Your task to perform on an android device: turn off priority inbox in the gmail app Image 0: 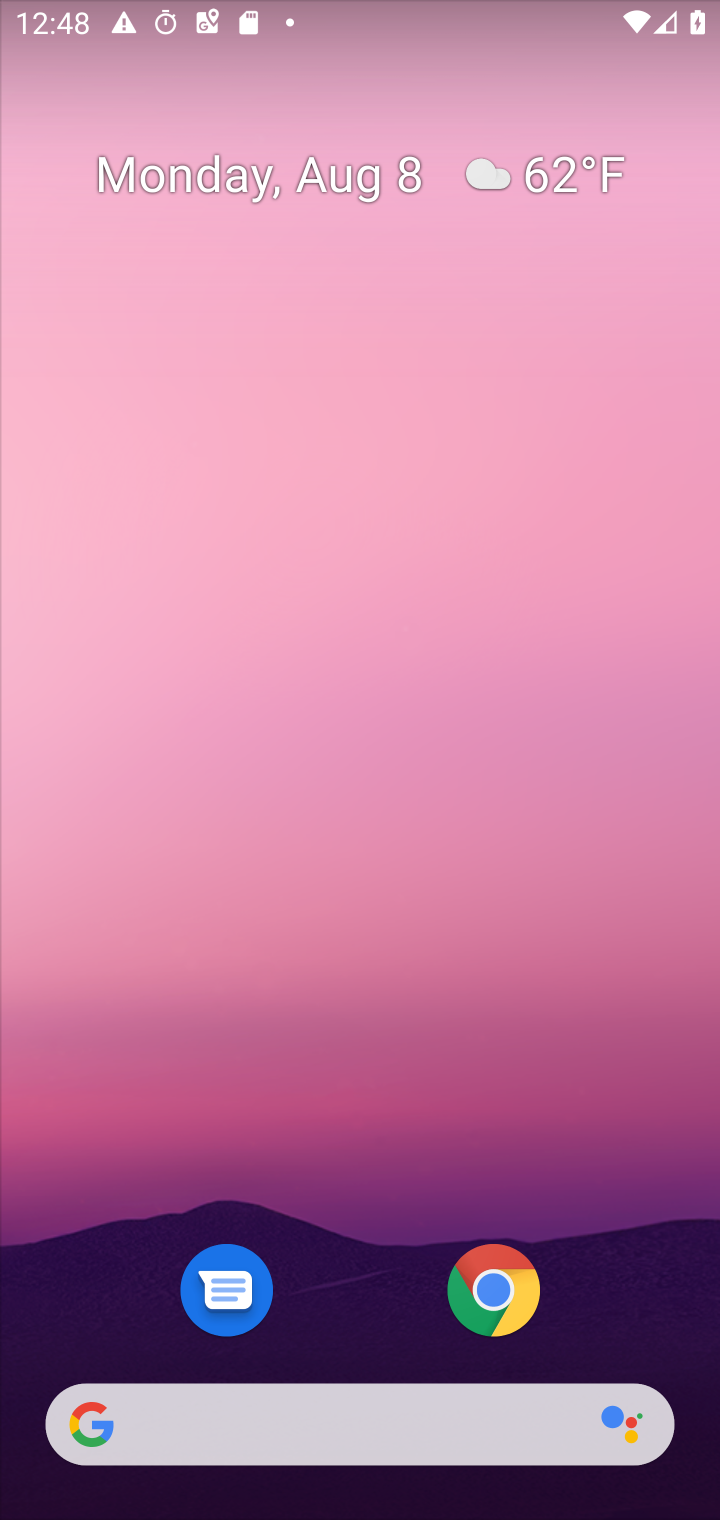
Step 0: drag from (365, 1359) to (430, 472)
Your task to perform on an android device: turn off priority inbox in the gmail app Image 1: 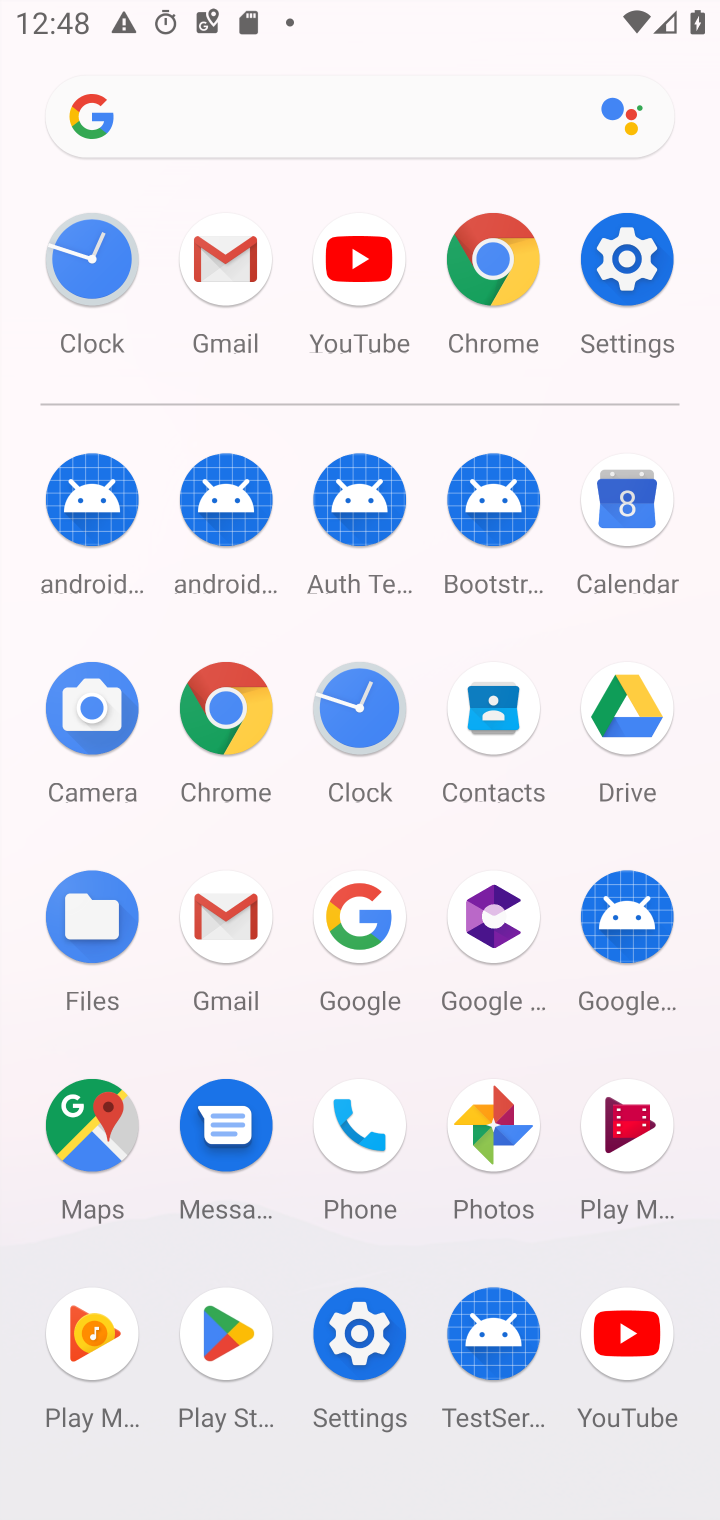
Step 1: click (241, 942)
Your task to perform on an android device: turn off priority inbox in the gmail app Image 2: 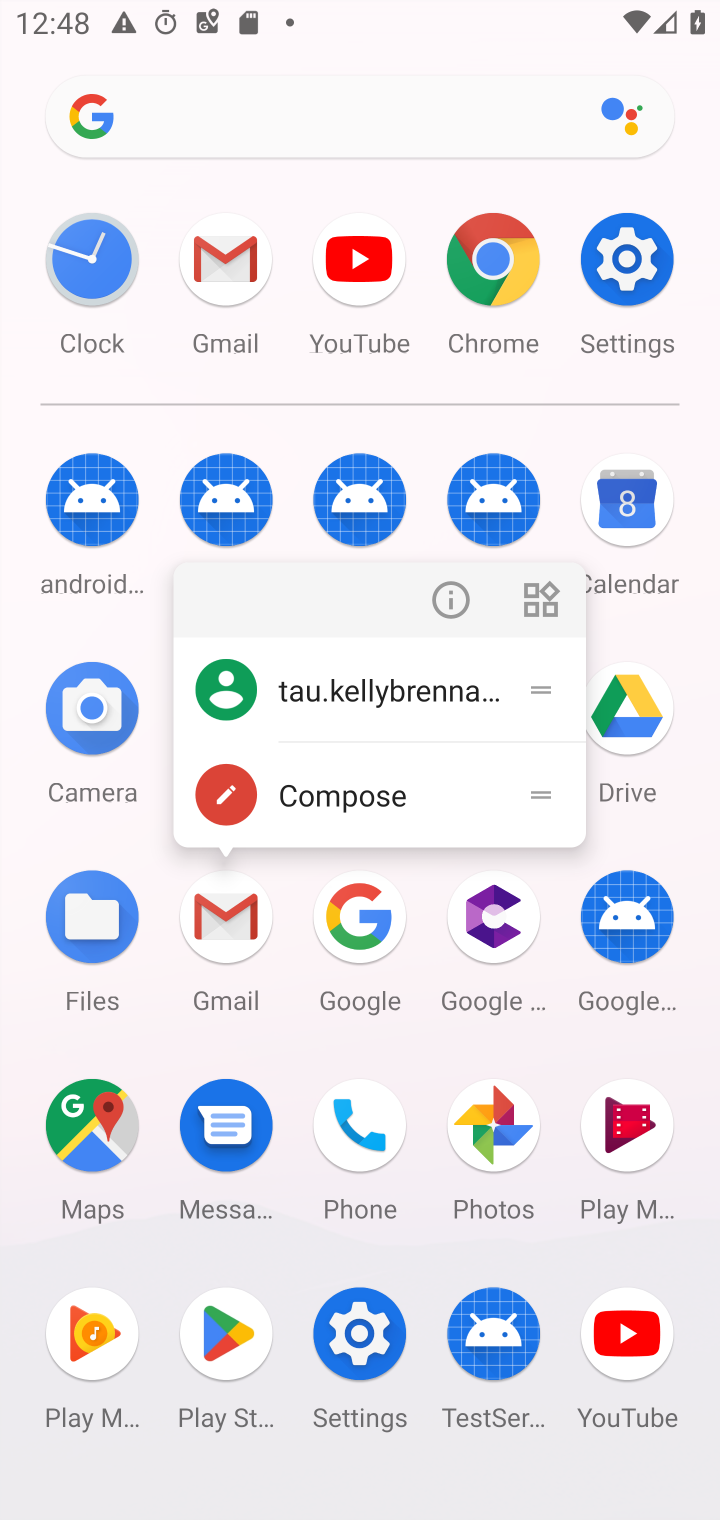
Step 2: click (241, 942)
Your task to perform on an android device: turn off priority inbox in the gmail app Image 3: 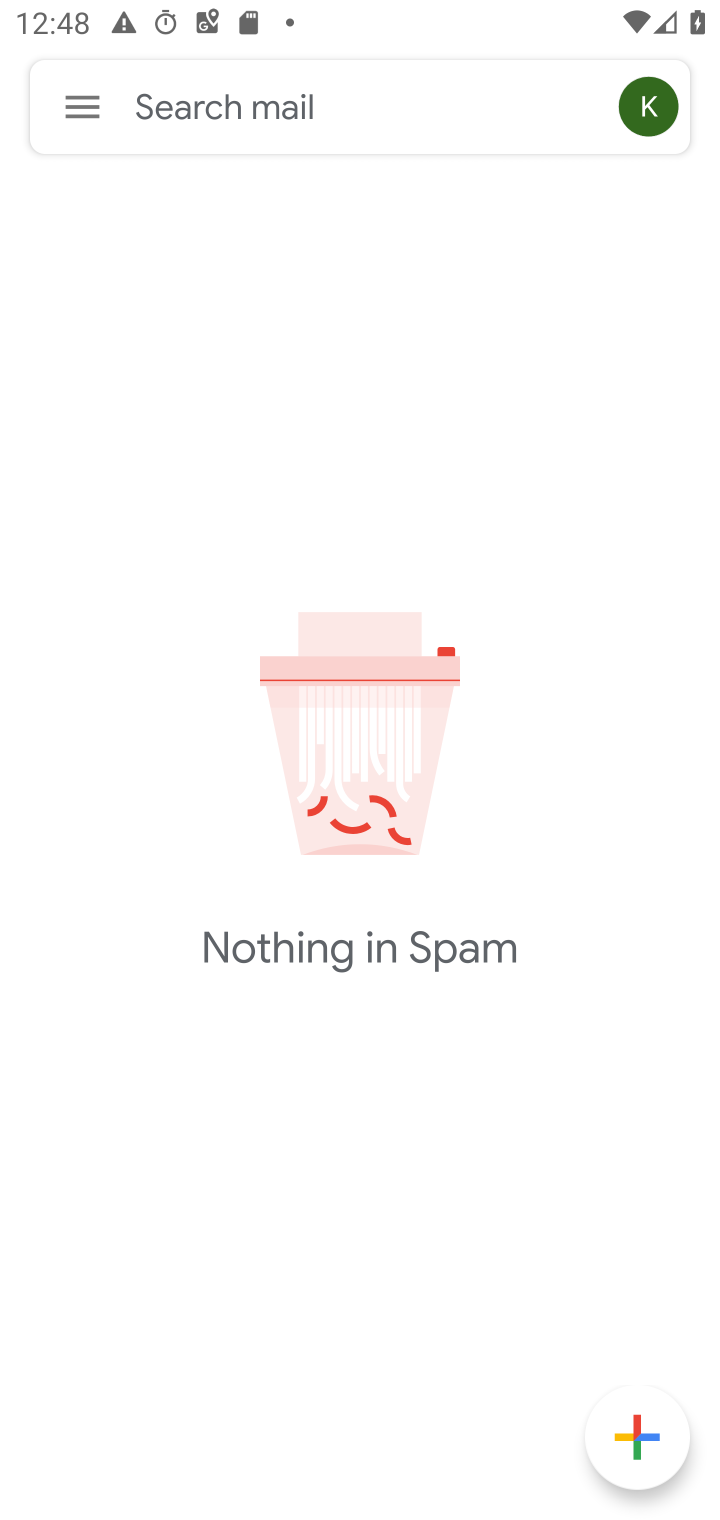
Step 3: click (84, 106)
Your task to perform on an android device: turn off priority inbox in the gmail app Image 4: 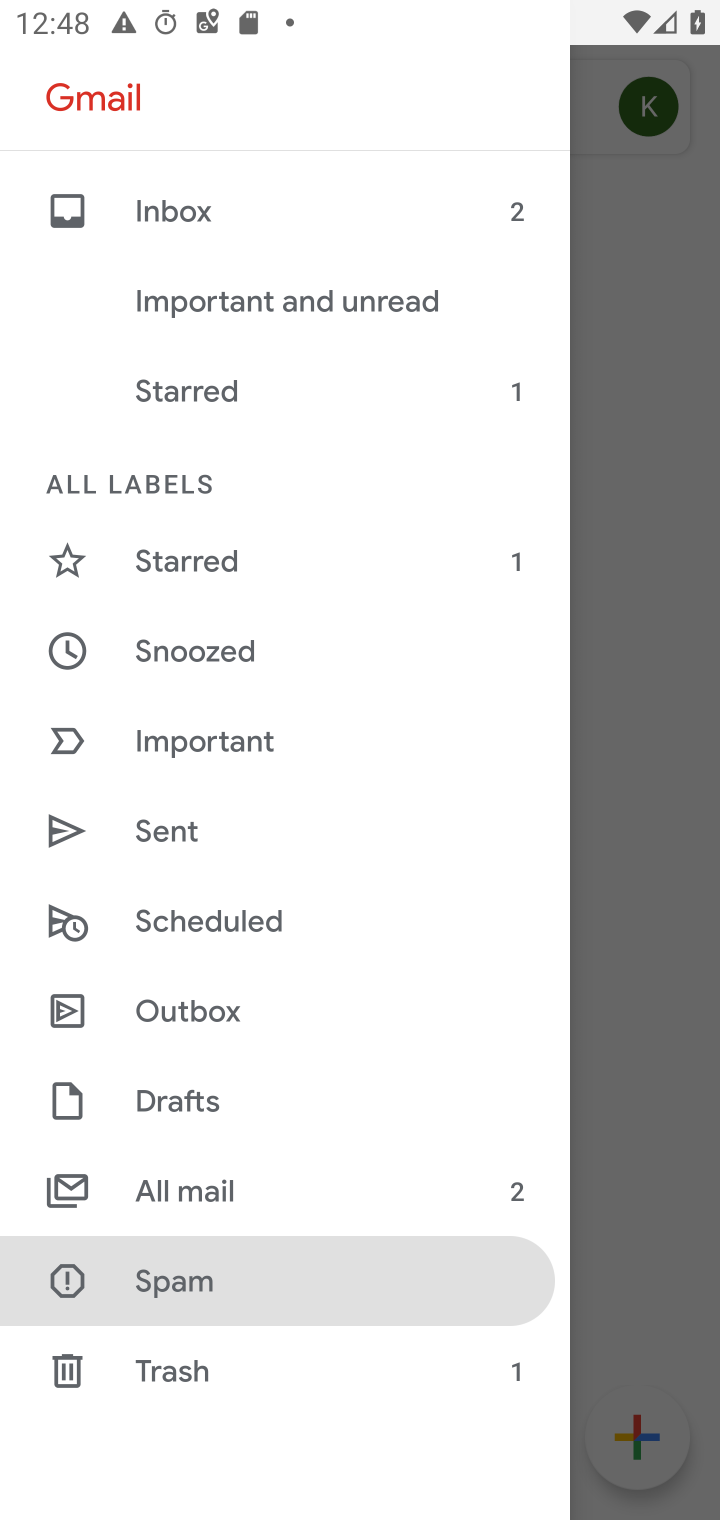
Step 4: drag from (285, 1214) to (394, 401)
Your task to perform on an android device: turn off priority inbox in the gmail app Image 5: 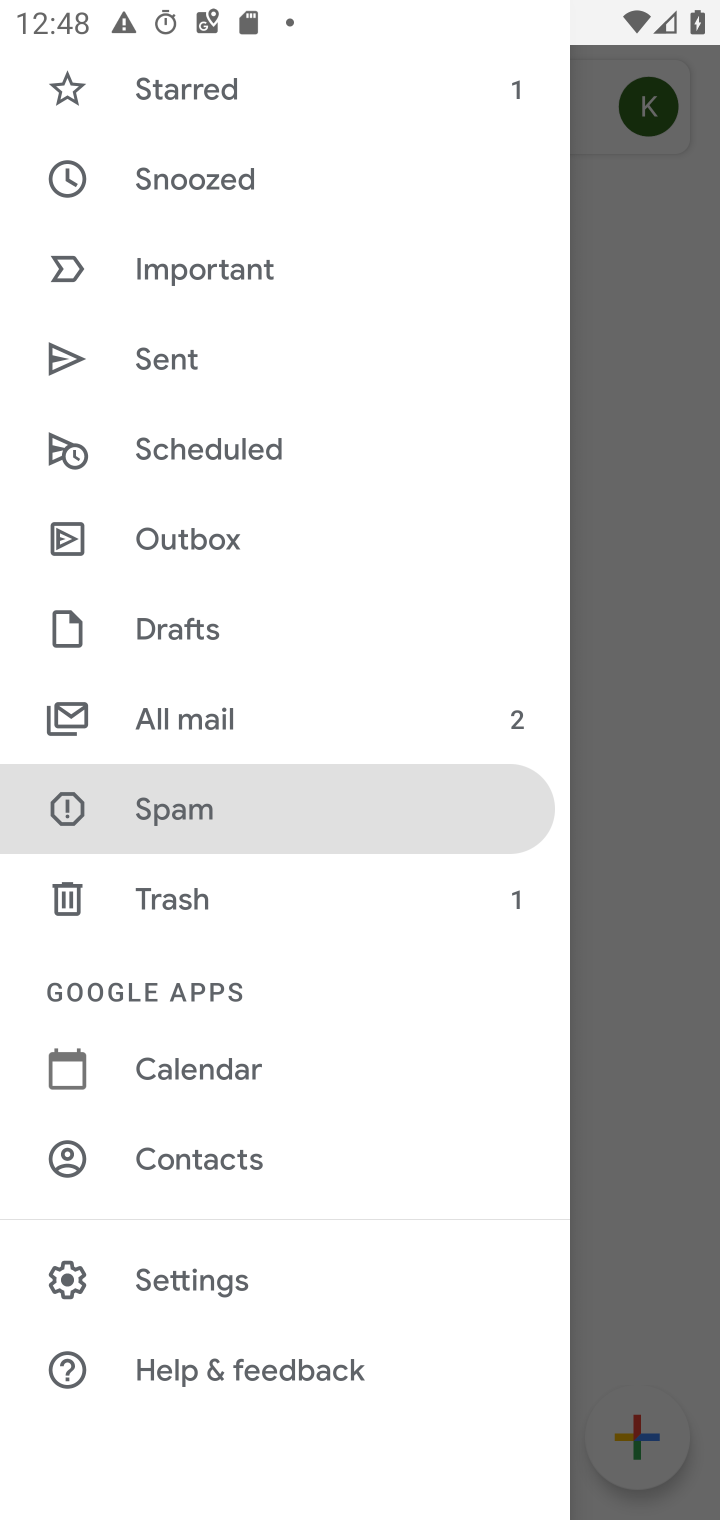
Step 5: drag from (283, 1196) to (294, 825)
Your task to perform on an android device: turn off priority inbox in the gmail app Image 6: 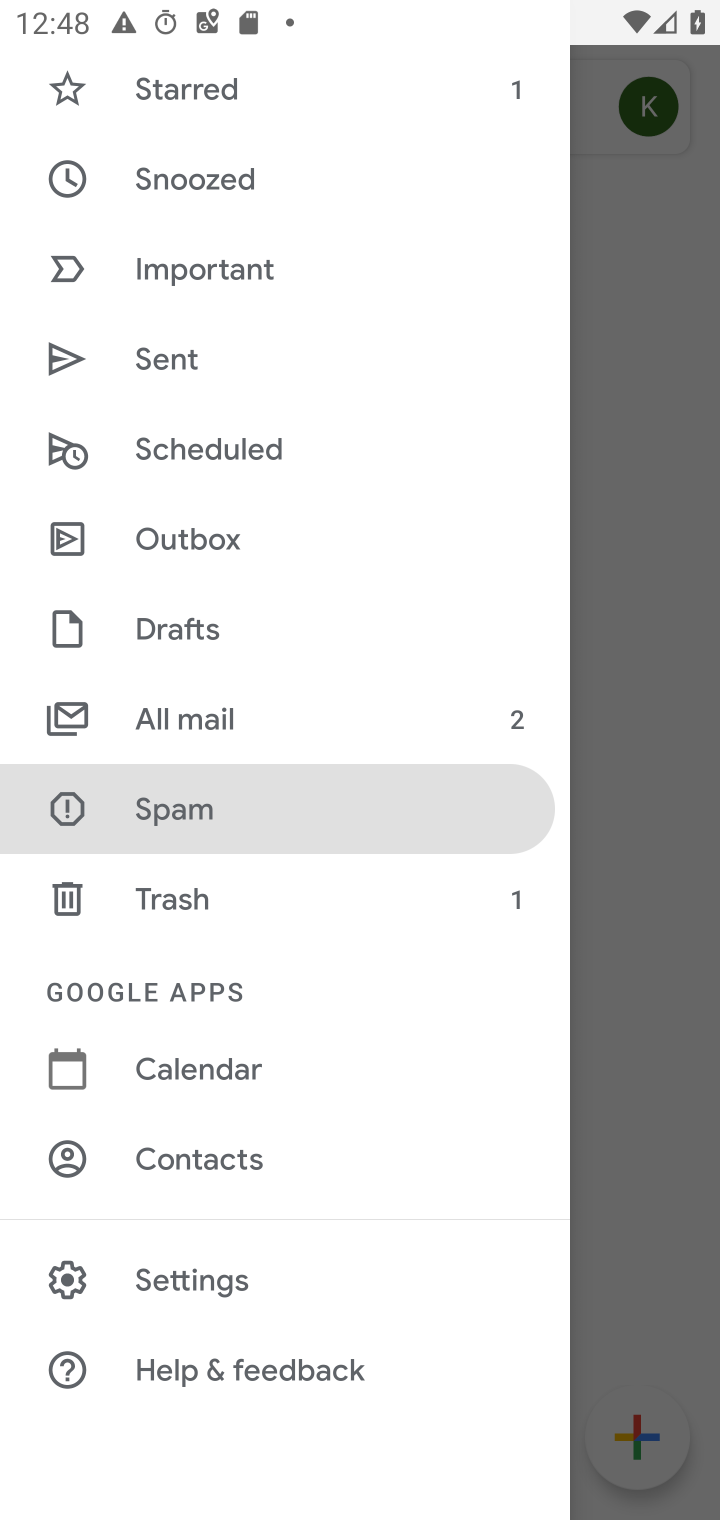
Step 6: click (221, 1284)
Your task to perform on an android device: turn off priority inbox in the gmail app Image 7: 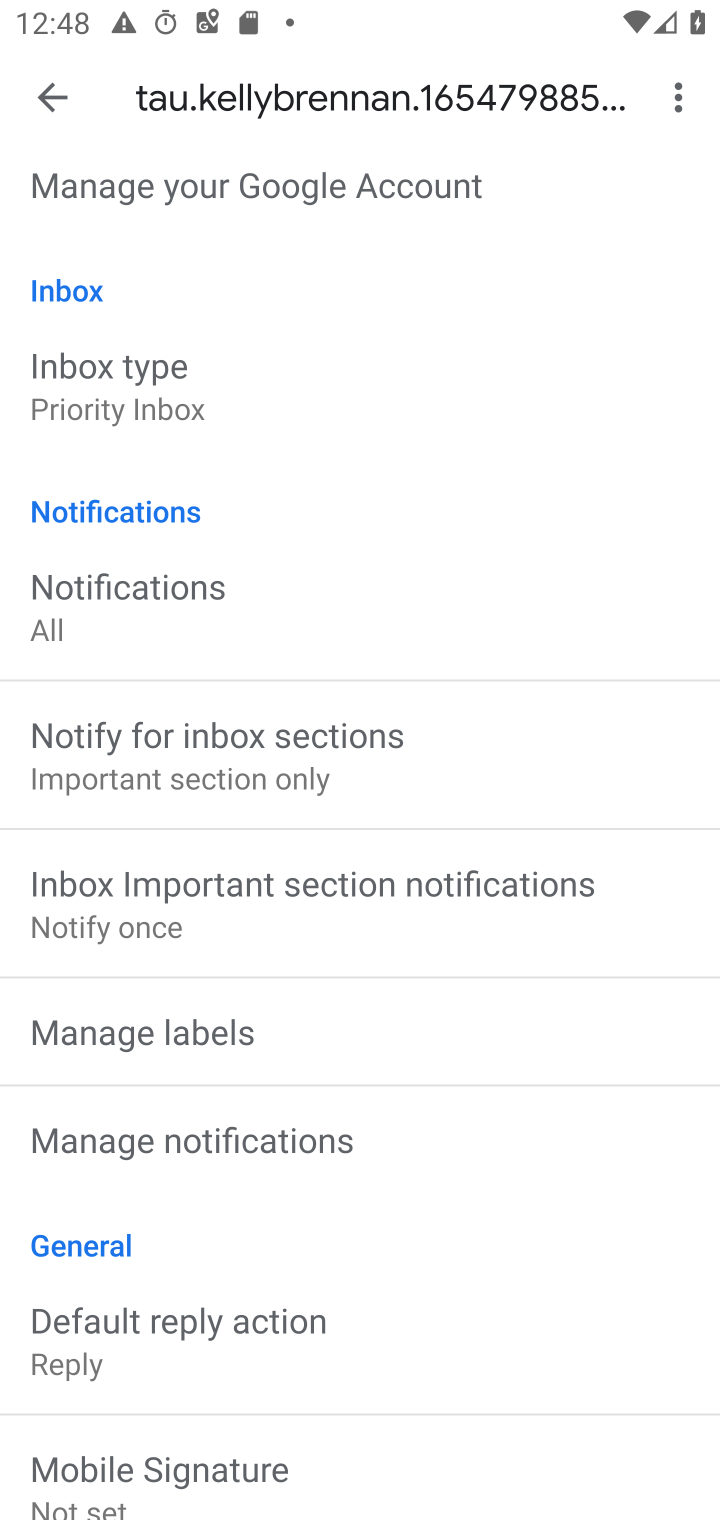
Step 7: click (139, 388)
Your task to perform on an android device: turn off priority inbox in the gmail app Image 8: 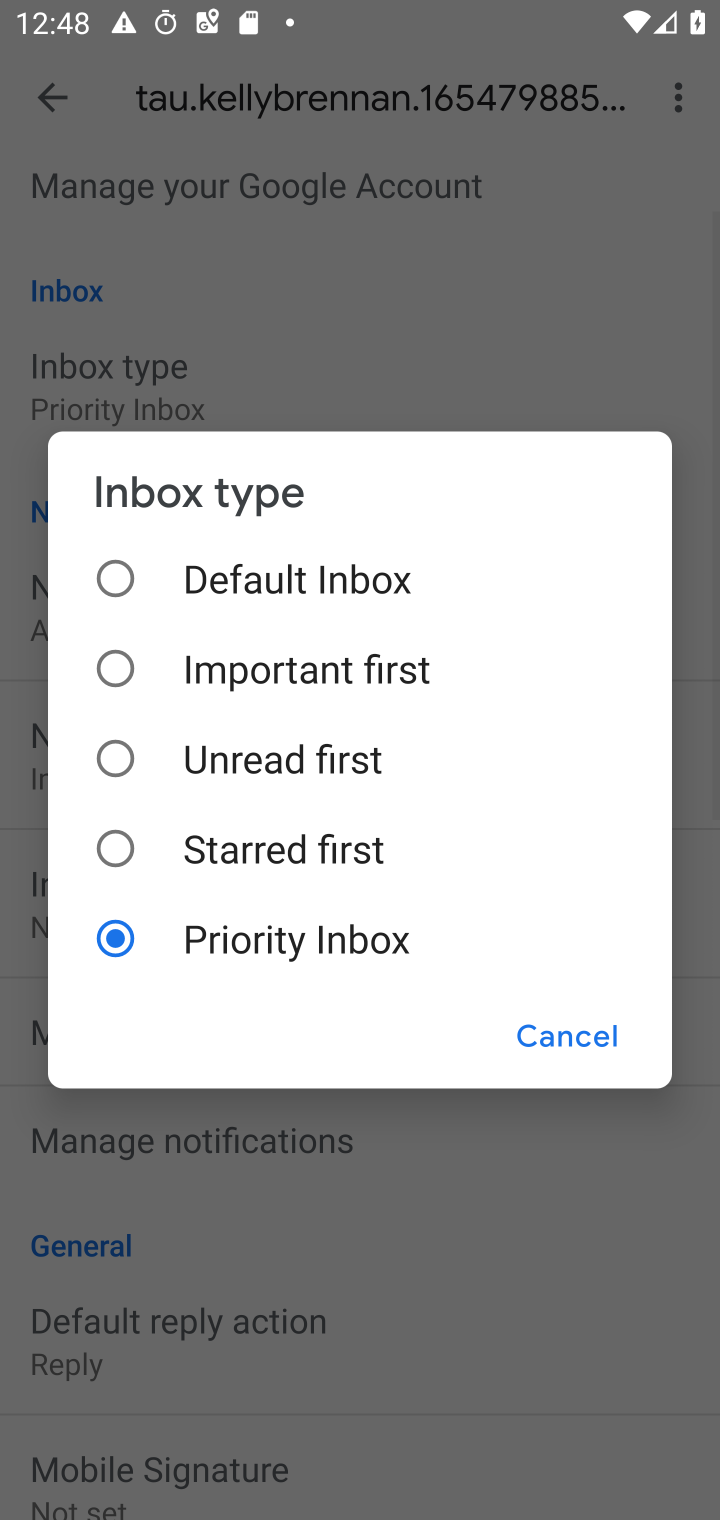
Step 8: click (272, 574)
Your task to perform on an android device: turn off priority inbox in the gmail app Image 9: 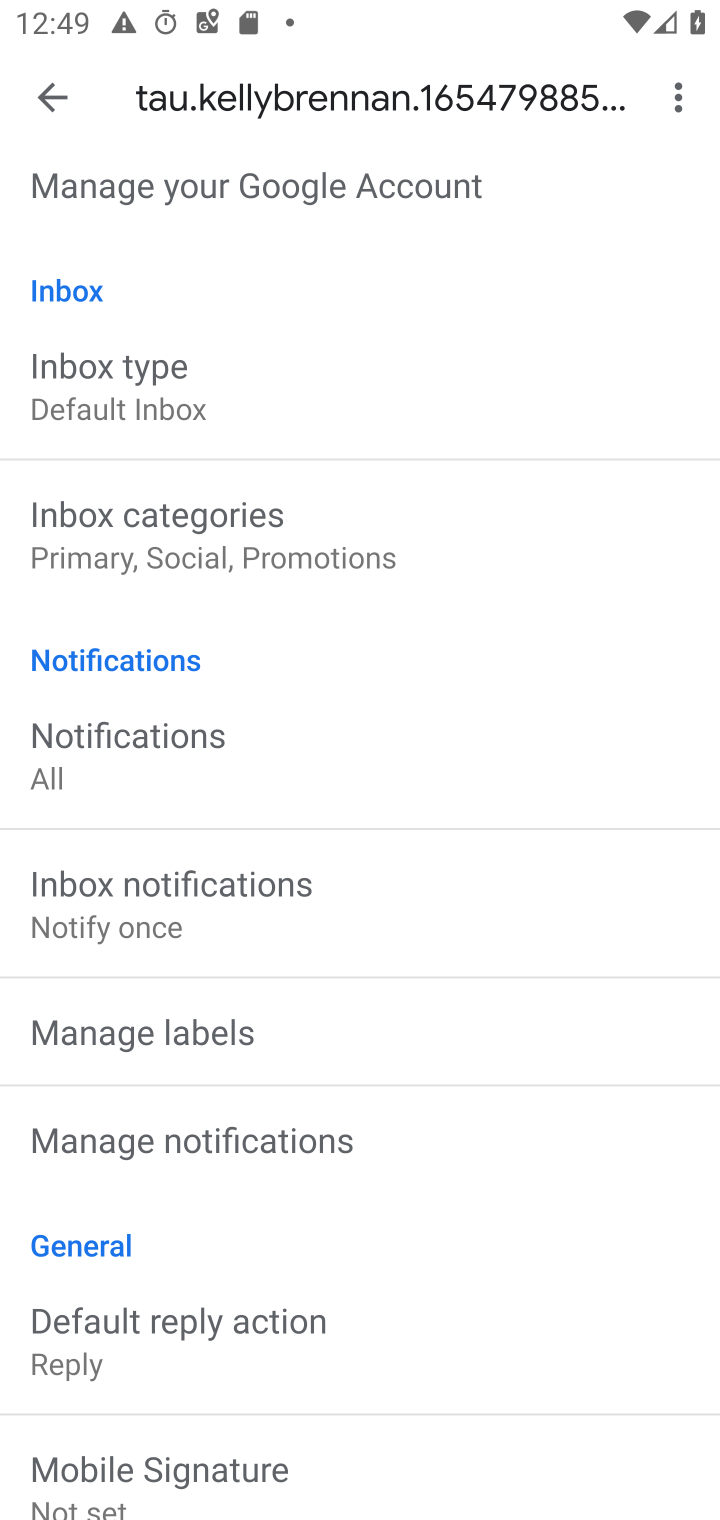
Step 9: task complete